Your task to perform on an android device: set the stopwatch Image 0: 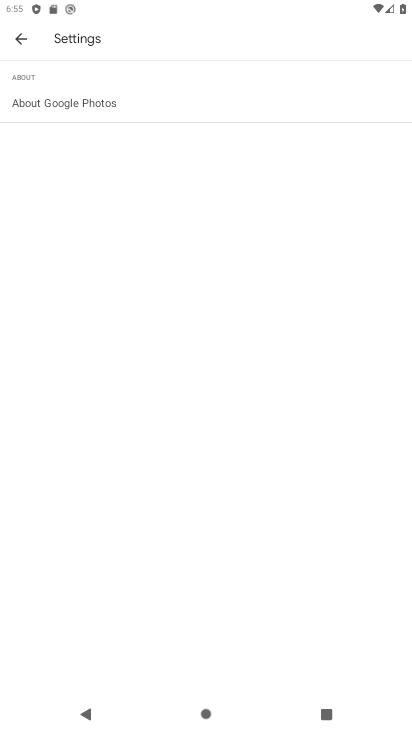
Step 0: press home button
Your task to perform on an android device: set the stopwatch Image 1: 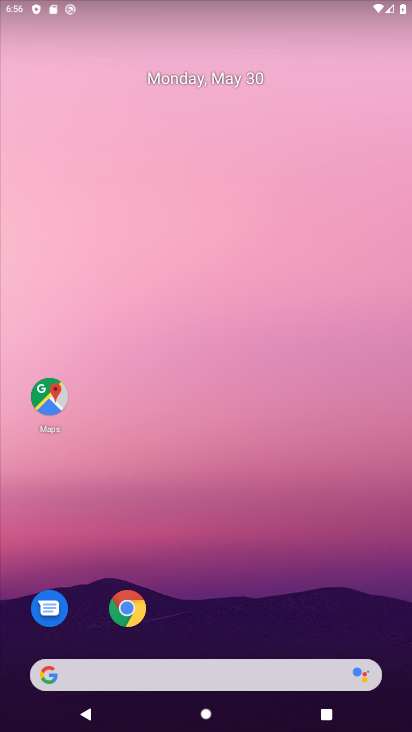
Step 1: drag from (200, 585) to (286, 59)
Your task to perform on an android device: set the stopwatch Image 2: 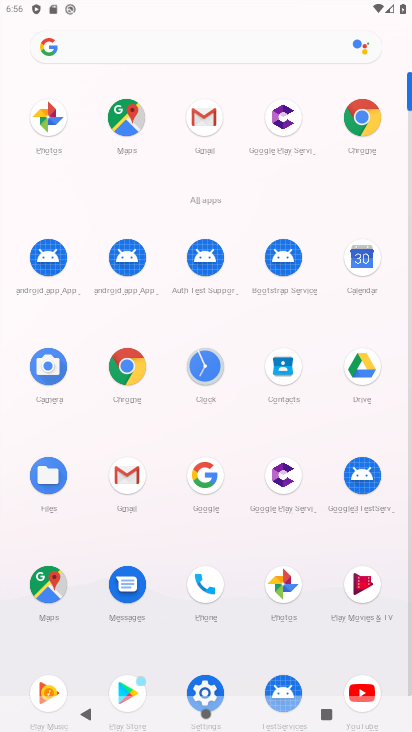
Step 2: click (212, 365)
Your task to perform on an android device: set the stopwatch Image 3: 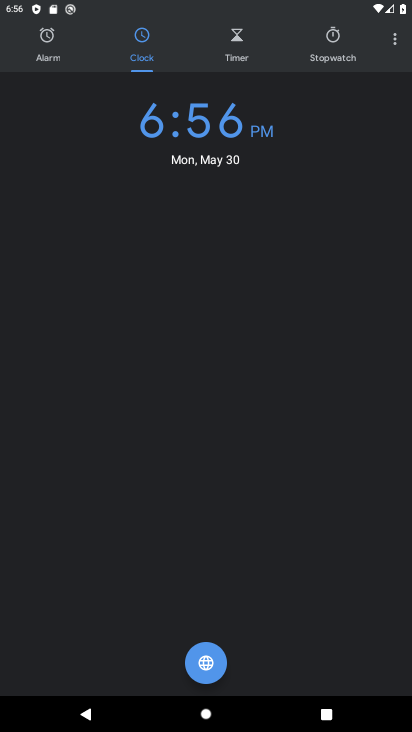
Step 3: click (316, 54)
Your task to perform on an android device: set the stopwatch Image 4: 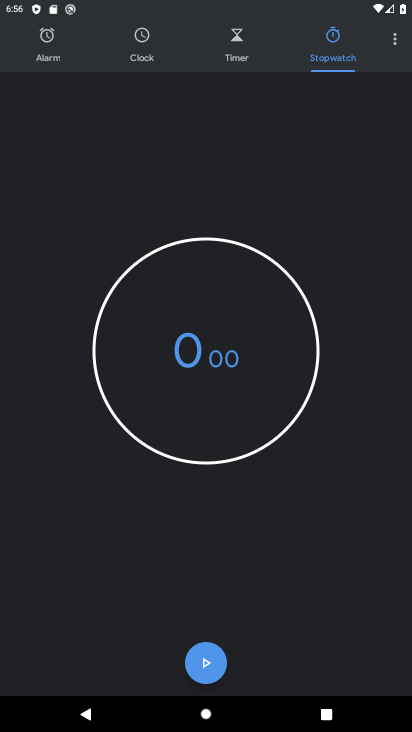
Step 4: click (223, 350)
Your task to perform on an android device: set the stopwatch Image 5: 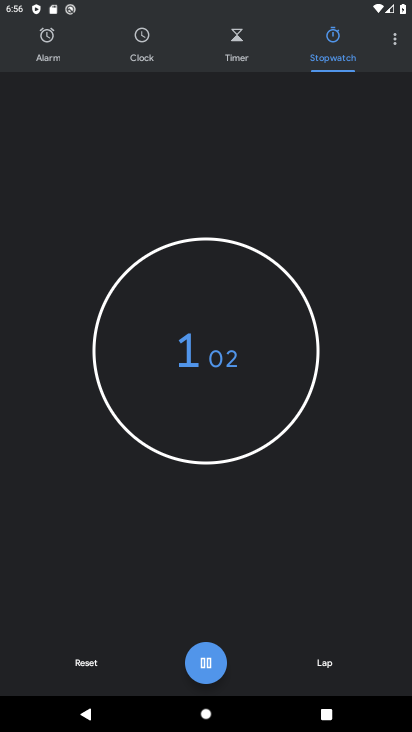
Step 5: task complete